Your task to perform on an android device: open app "Skype" (install if not already installed) Image 0: 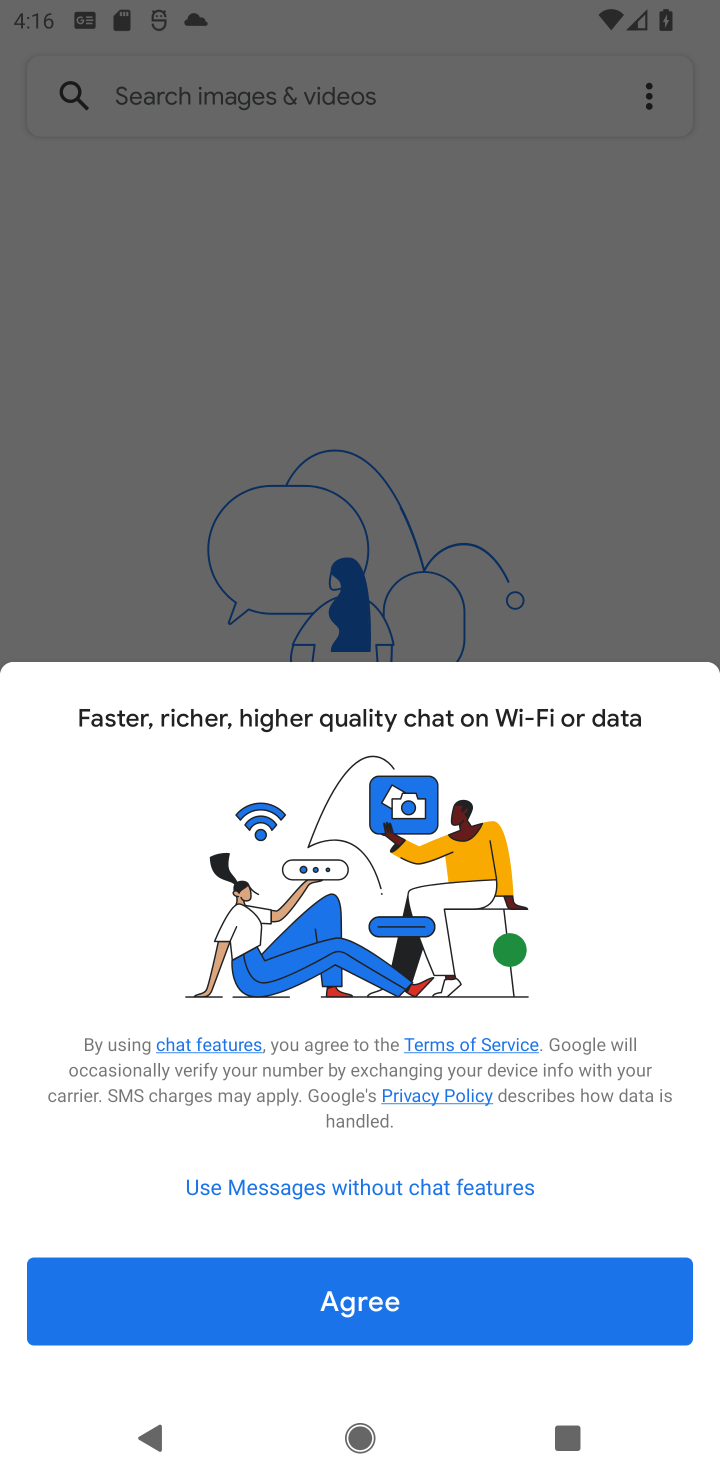
Step 0: press home button
Your task to perform on an android device: open app "Skype" (install if not already installed) Image 1: 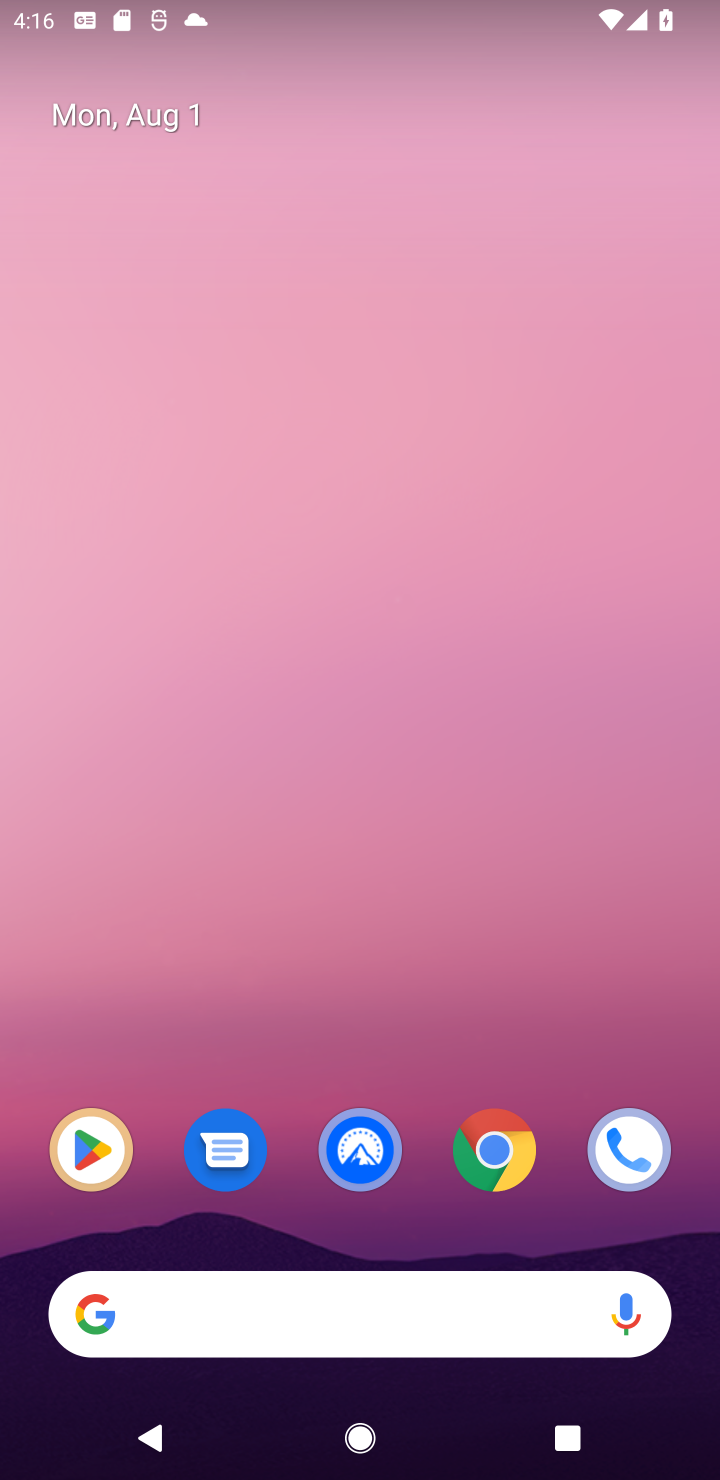
Step 1: drag from (262, 1245) to (309, 49)
Your task to perform on an android device: open app "Skype" (install if not already installed) Image 2: 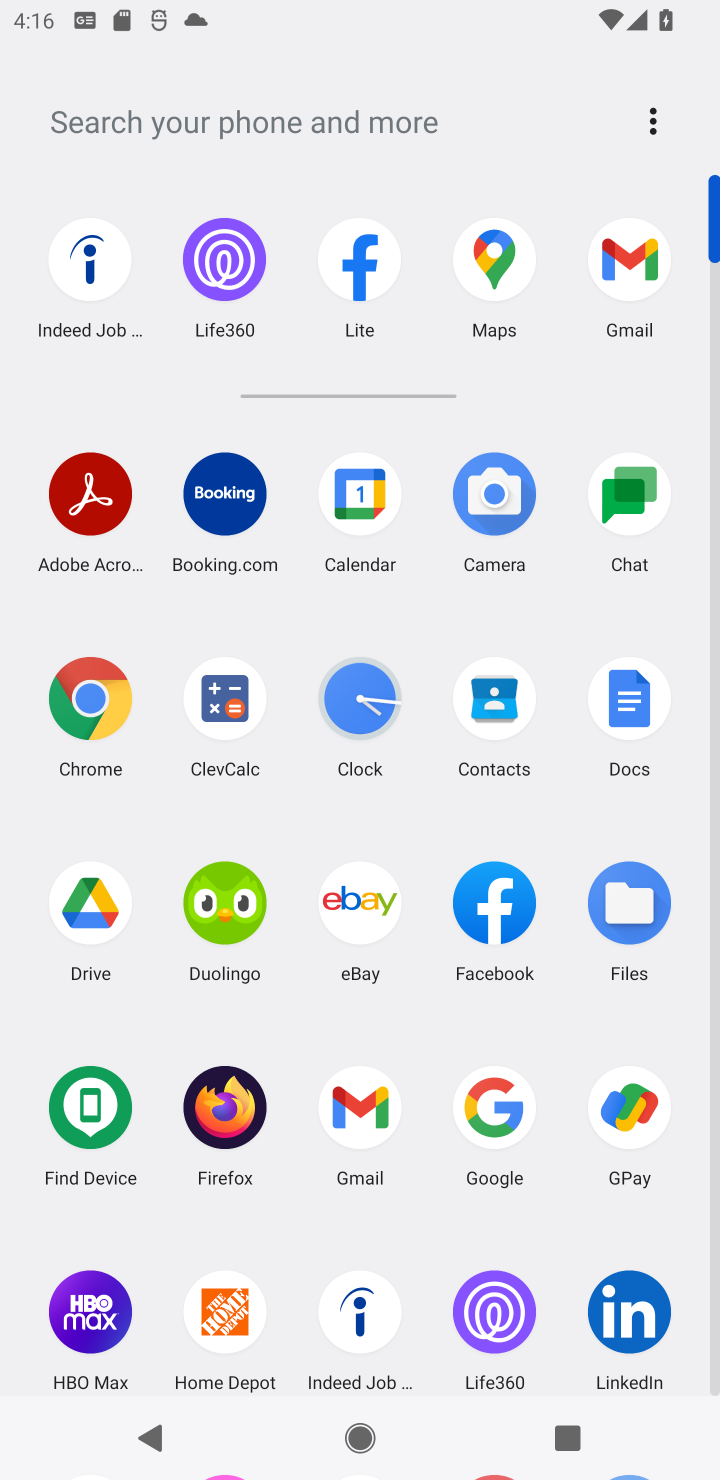
Step 2: click (712, 1384)
Your task to perform on an android device: open app "Skype" (install if not already installed) Image 3: 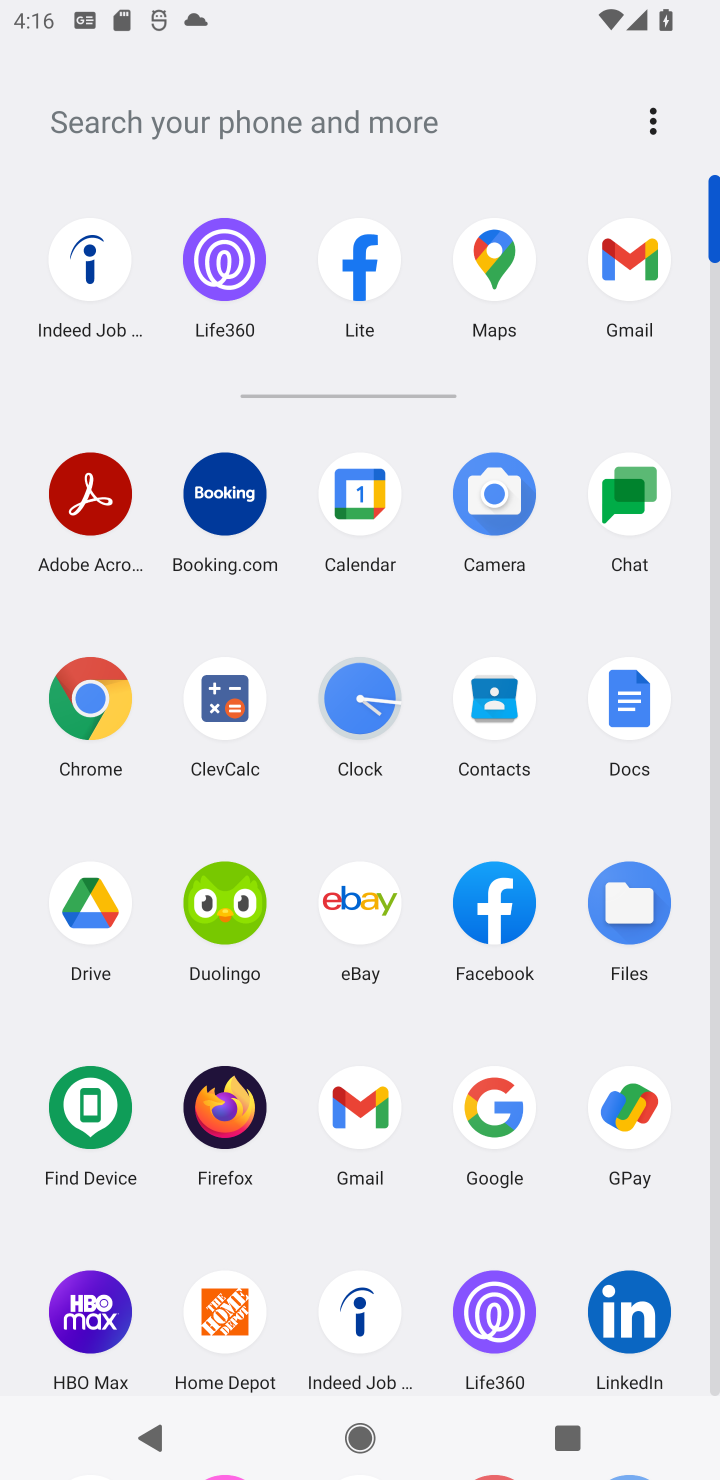
Step 3: click (720, 1377)
Your task to perform on an android device: open app "Skype" (install if not already installed) Image 4: 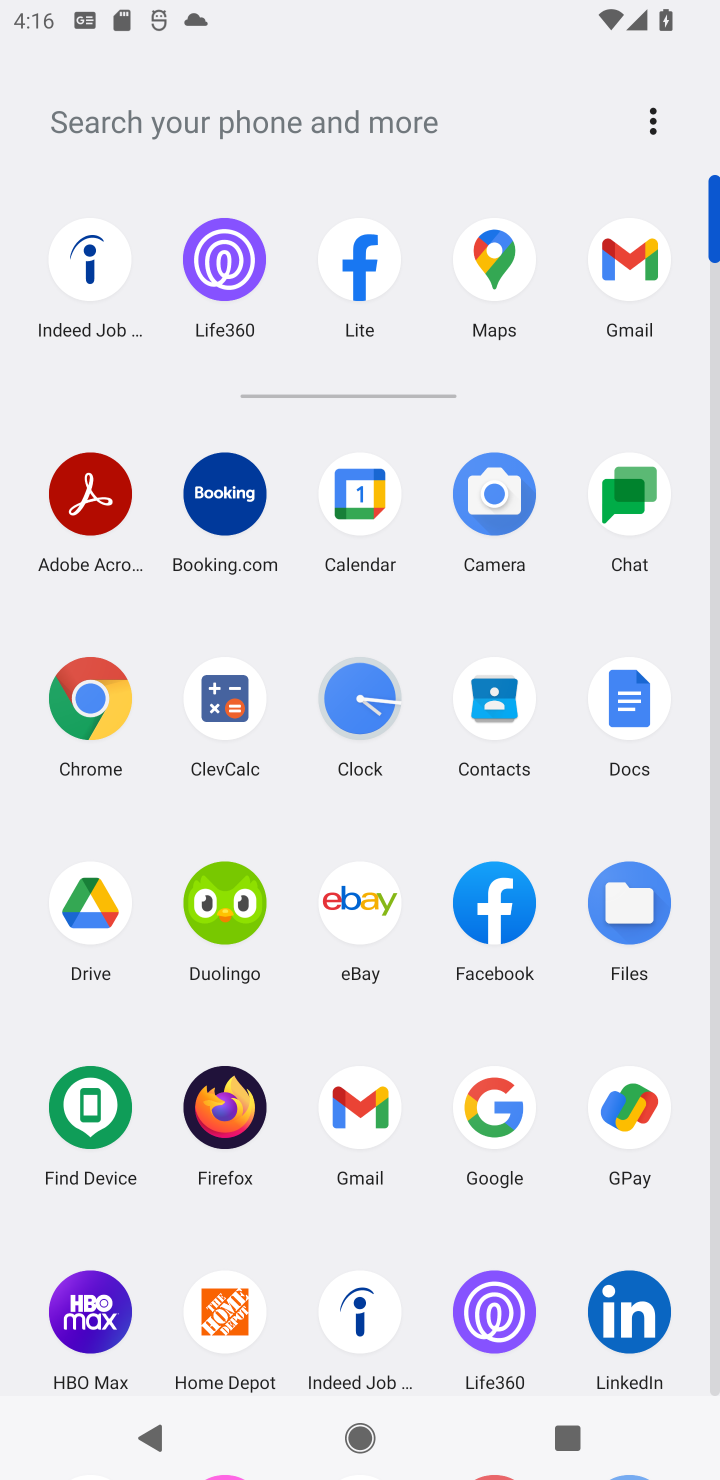
Step 4: click (715, 1377)
Your task to perform on an android device: open app "Skype" (install if not already installed) Image 5: 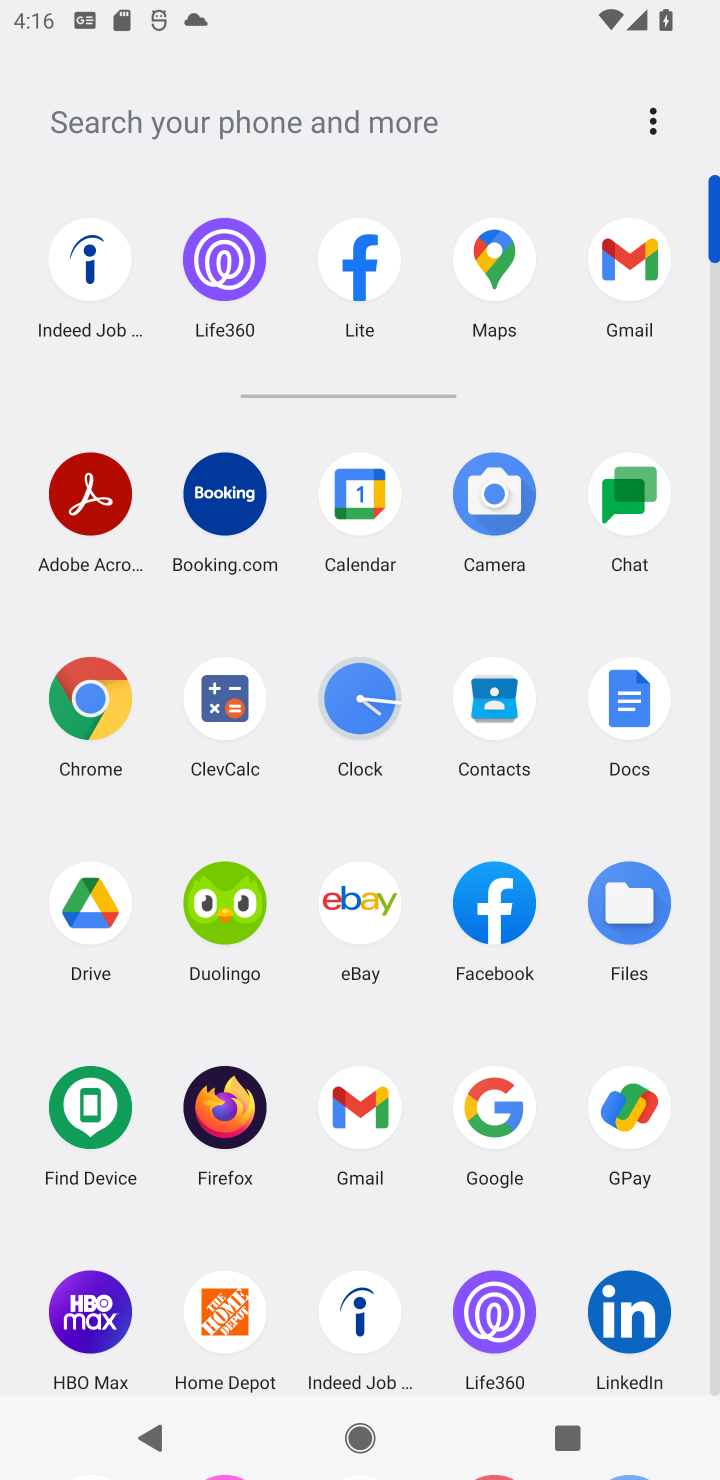
Step 5: click (715, 1377)
Your task to perform on an android device: open app "Skype" (install if not already installed) Image 6: 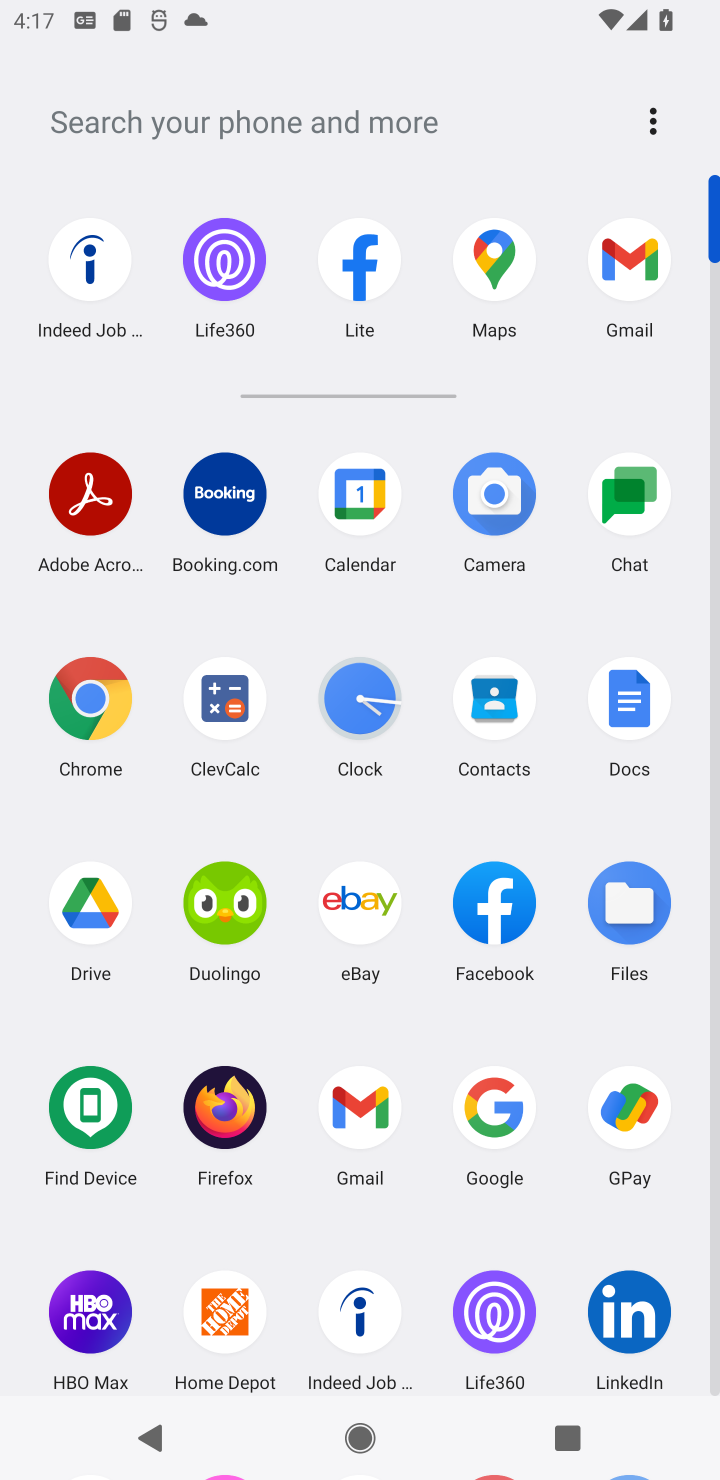
Step 6: task complete